Your task to perform on an android device: stop showing notifications on the lock screen Image 0: 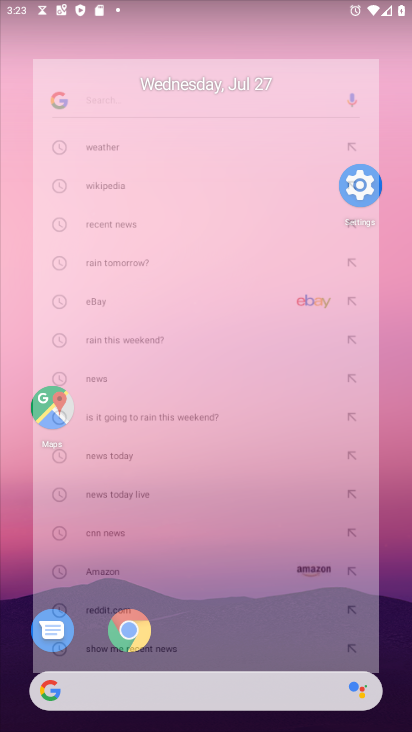
Step 0: press home button
Your task to perform on an android device: stop showing notifications on the lock screen Image 1: 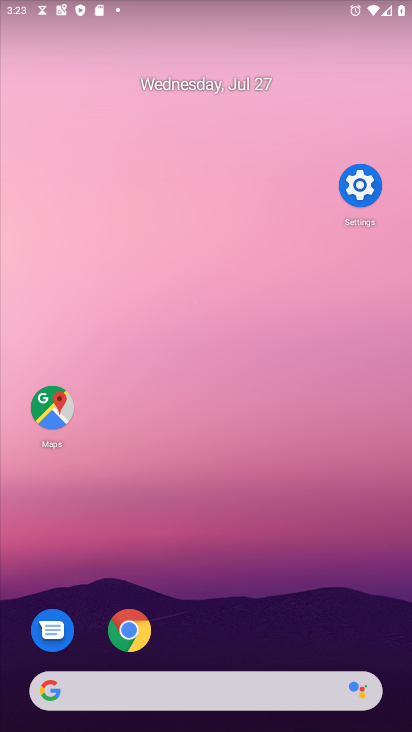
Step 1: click (367, 174)
Your task to perform on an android device: stop showing notifications on the lock screen Image 2: 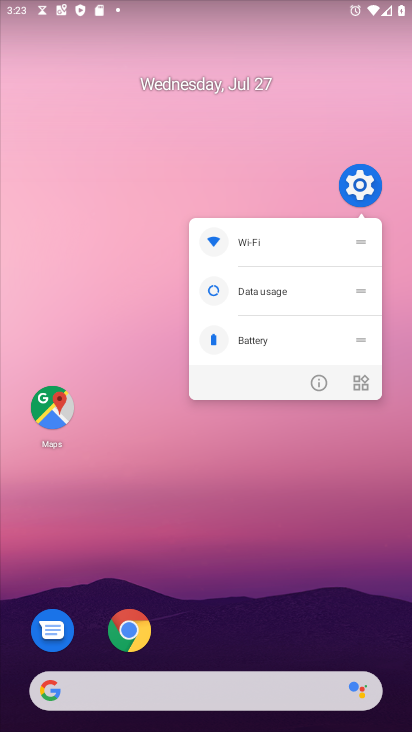
Step 2: click (358, 178)
Your task to perform on an android device: stop showing notifications on the lock screen Image 3: 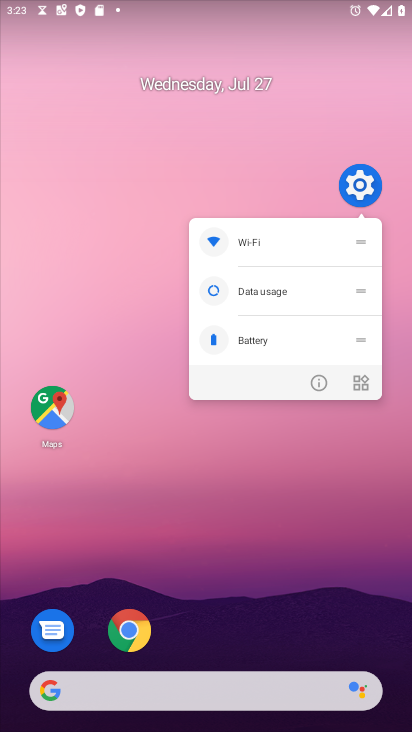
Step 3: click (358, 179)
Your task to perform on an android device: stop showing notifications on the lock screen Image 4: 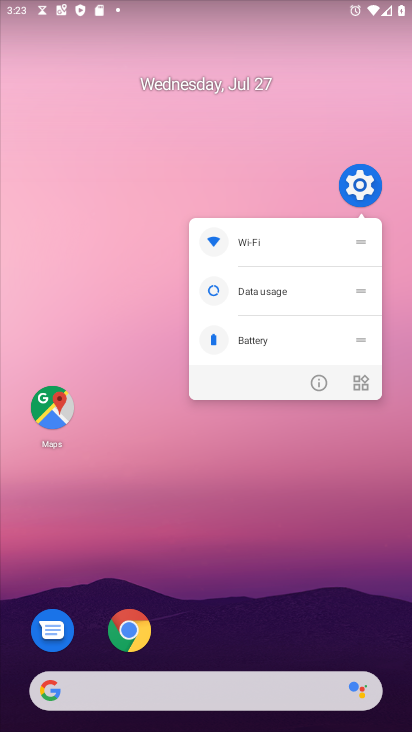
Step 4: click (355, 184)
Your task to perform on an android device: stop showing notifications on the lock screen Image 5: 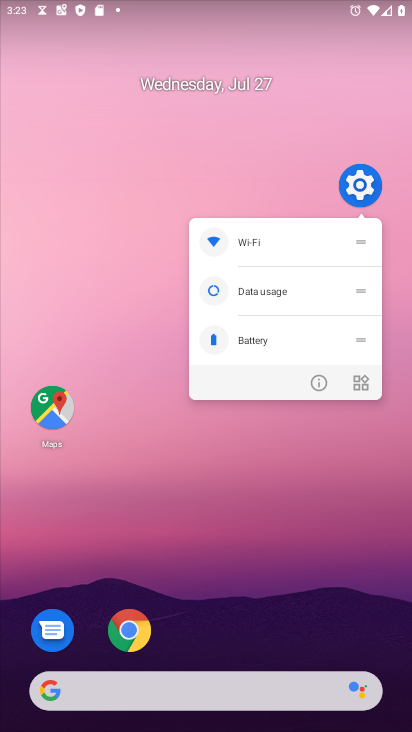
Step 5: click (269, 608)
Your task to perform on an android device: stop showing notifications on the lock screen Image 6: 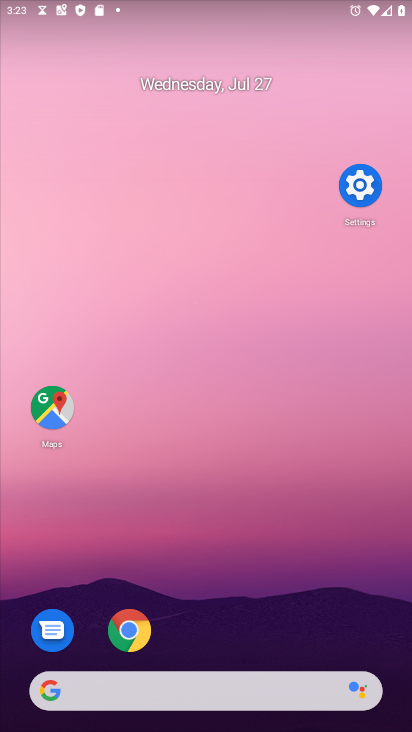
Step 6: click (356, 191)
Your task to perform on an android device: stop showing notifications on the lock screen Image 7: 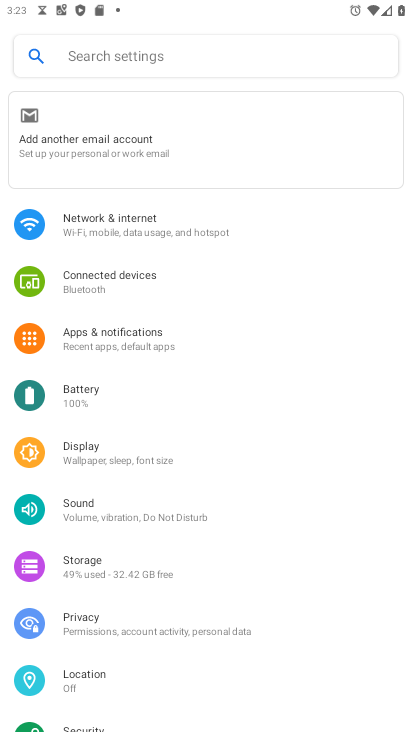
Step 7: click (80, 339)
Your task to perform on an android device: stop showing notifications on the lock screen Image 8: 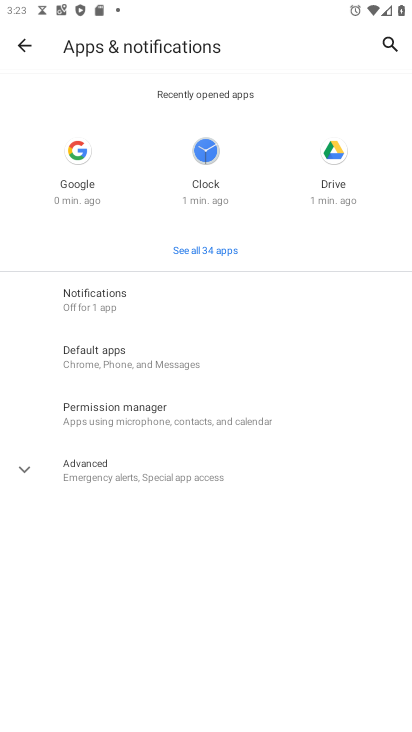
Step 8: click (114, 311)
Your task to perform on an android device: stop showing notifications on the lock screen Image 9: 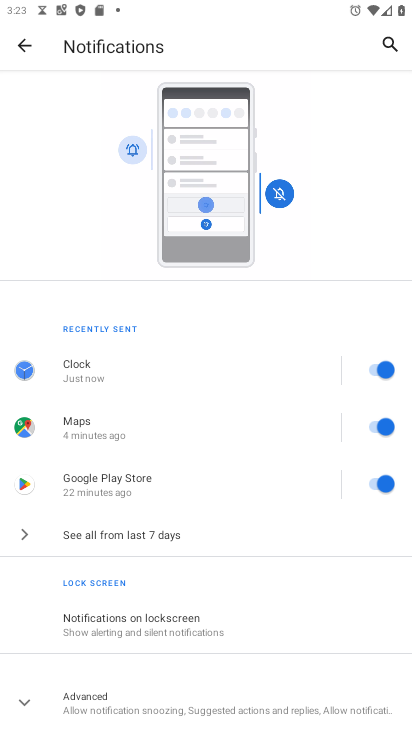
Step 9: click (139, 629)
Your task to perform on an android device: stop showing notifications on the lock screen Image 10: 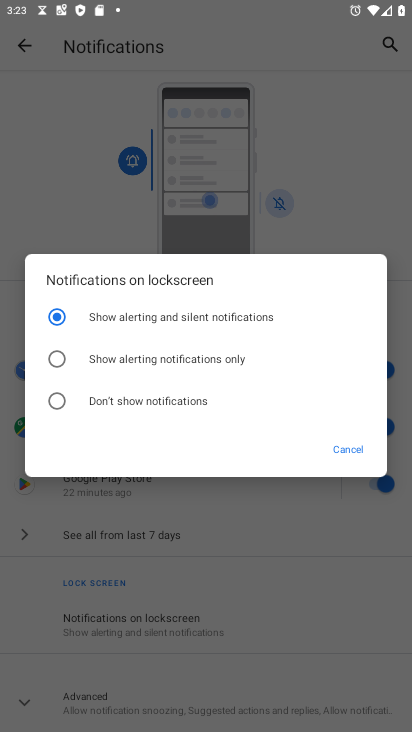
Step 10: click (57, 400)
Your task to perform on an android device: stop showing notifications on the lock screen Image 11: 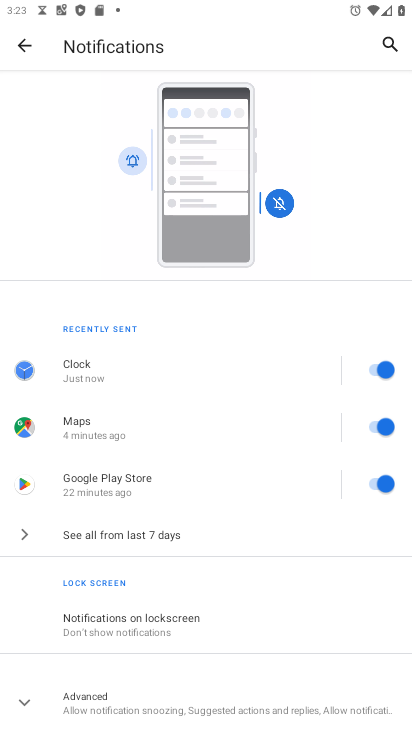
Step 11: task complete